Your task to perform on an android device: open device folders in google photos Image 0: 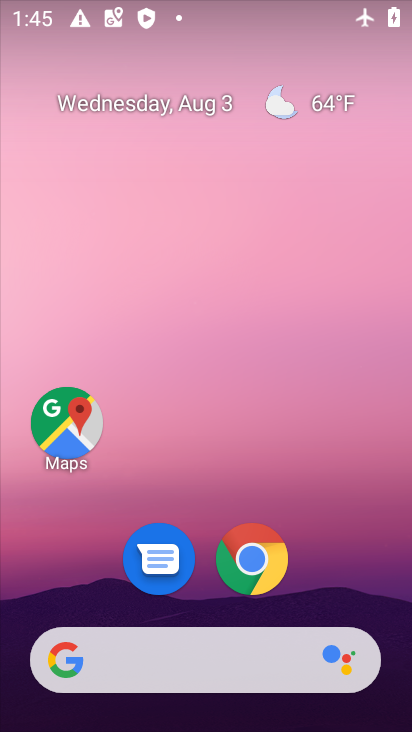
Step 0: drag from (207, 600) to (207, 126)
Your task to perform on an android device: open device folders in google photos Image 1: 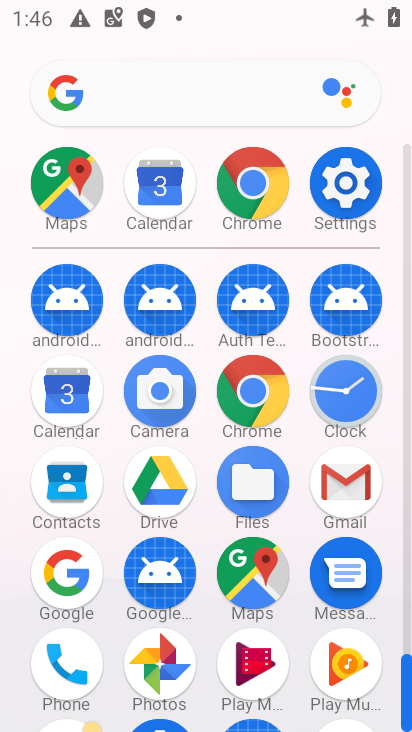
Step 1: click (161, 663)
Your task to perform on an android device: open device folders in google photos Image 2: 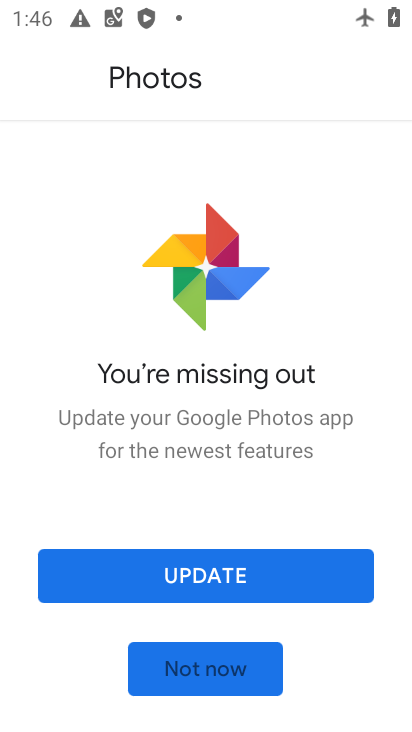
Step 2: task complete